Your task to perform on an android device: Clear the shopping cart on newegg. Search for razer nari on newegg, select the first entry, and add it to the cart. Image 0: 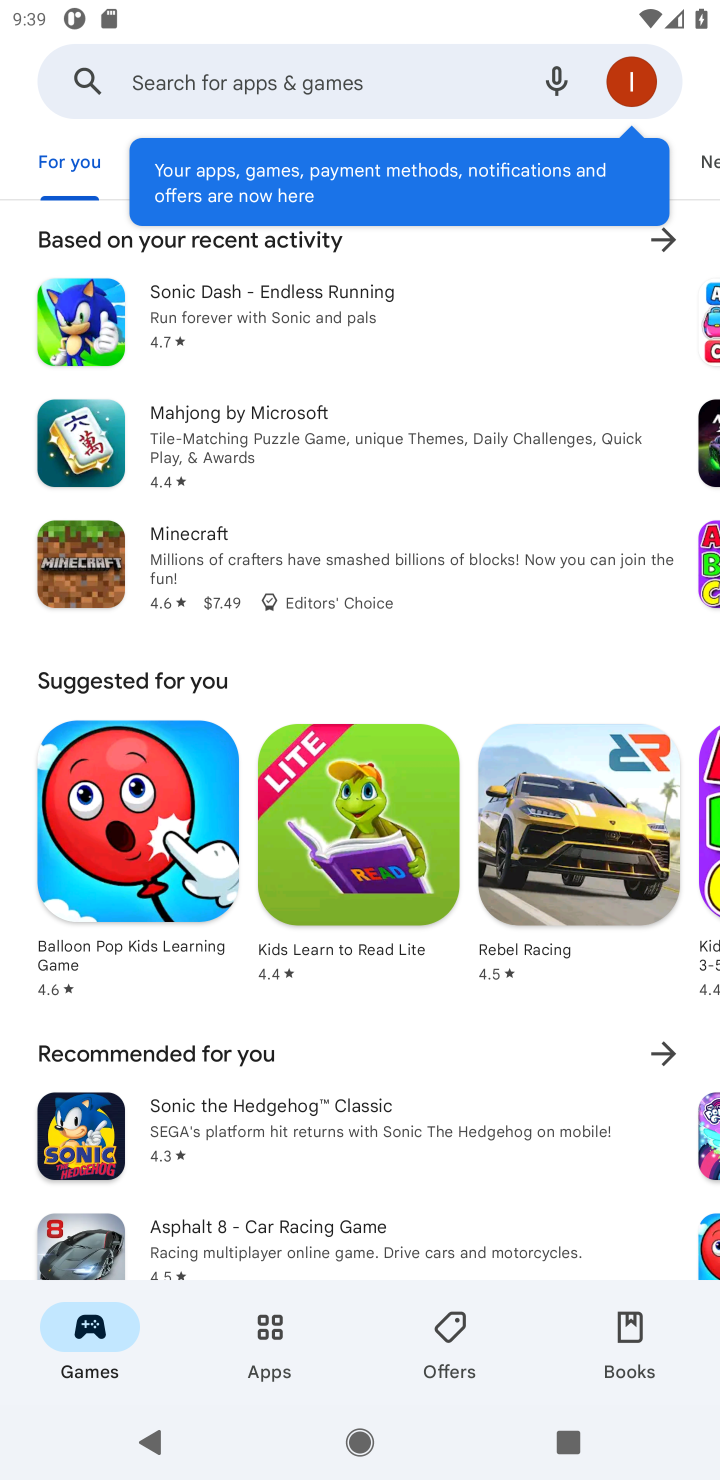
Step 0: press home button
Your task to perform on an android device: Clear the shopping cart on newegg. Search for razer nari on newegg, select the first entry, and add it to the cart. Image 1: 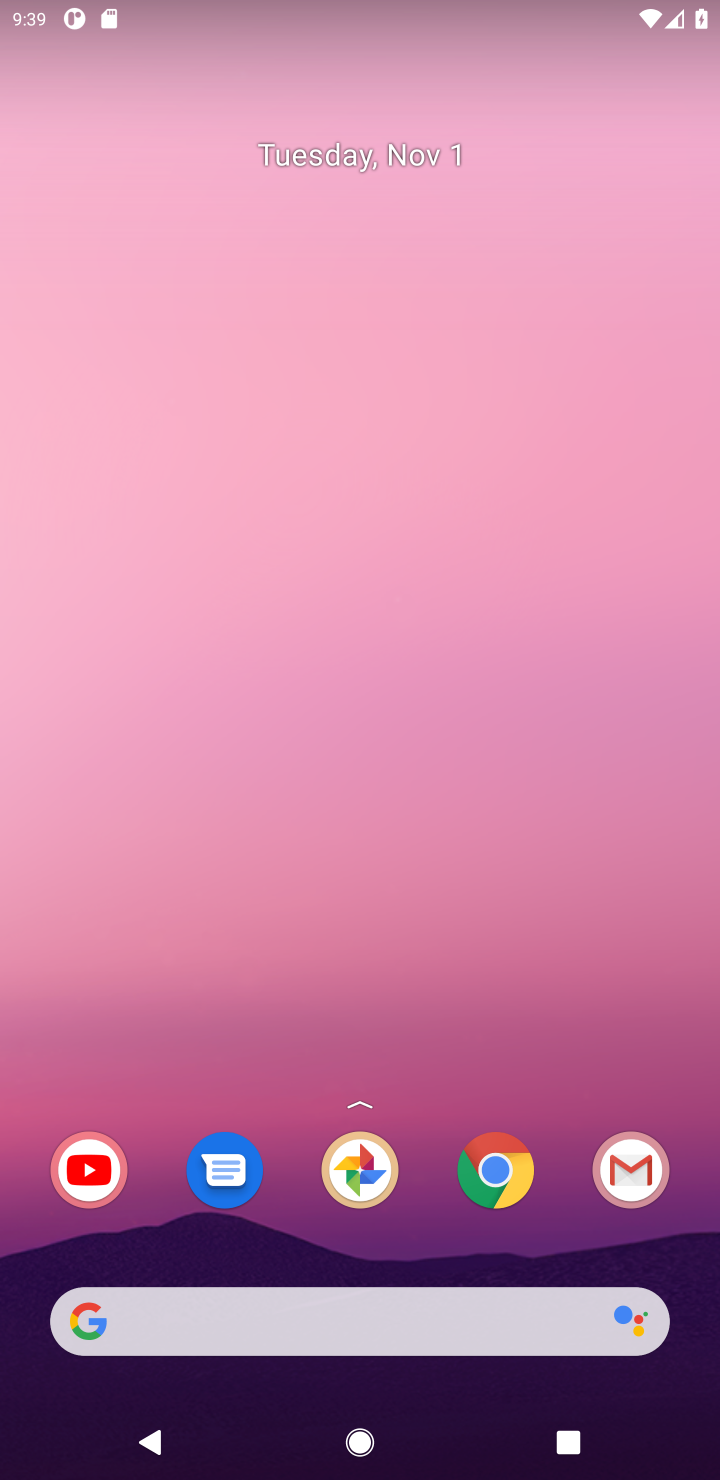
Step 1: click (490, 1164)
Your task to perform on an android device: Clear the shopping cart on newegg. Search for razer nari on newegg, select the first entry, and add it to the cart. Image 2: 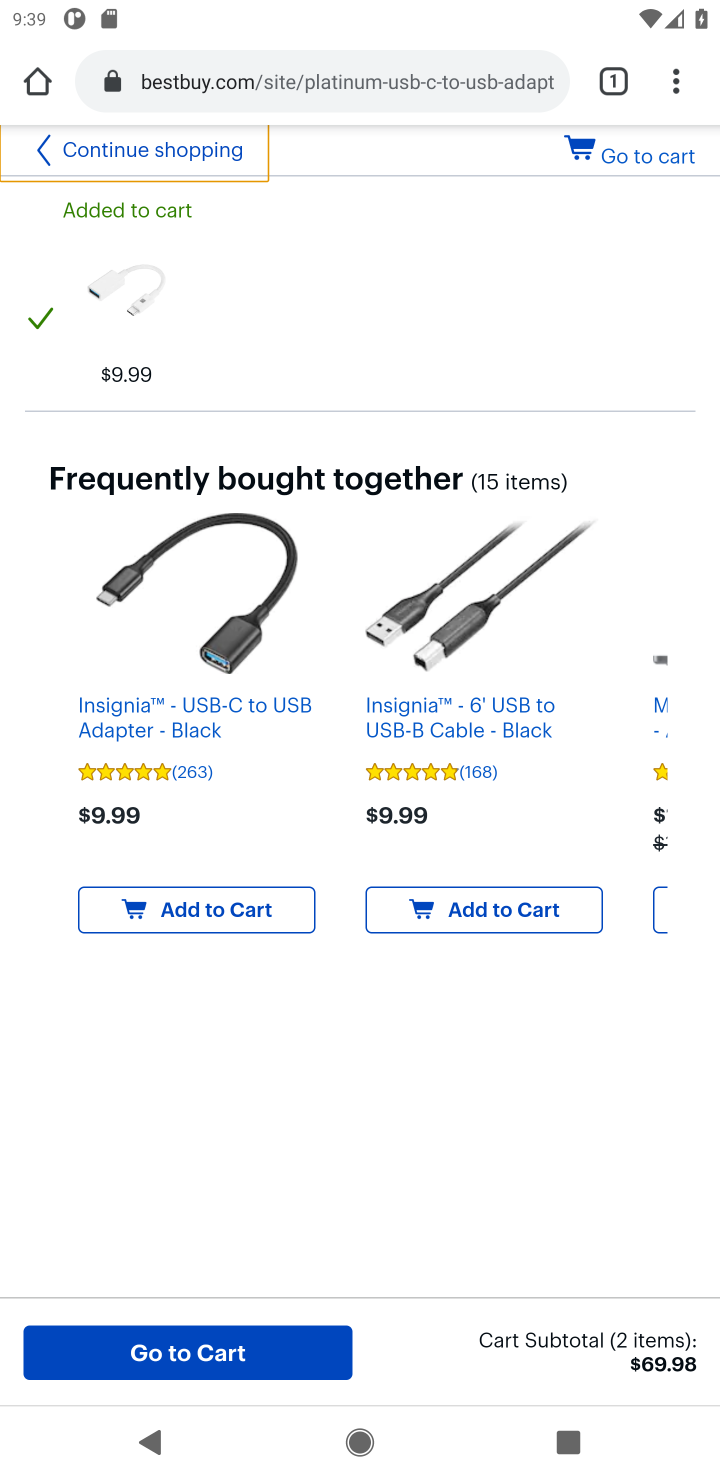
Step 2: click (355, 89)
Your task to perform on an android device: Clear the shopping cart on newegg. Search for razer nari on newegg, select the first entry, and add it to the cart. Image 3: 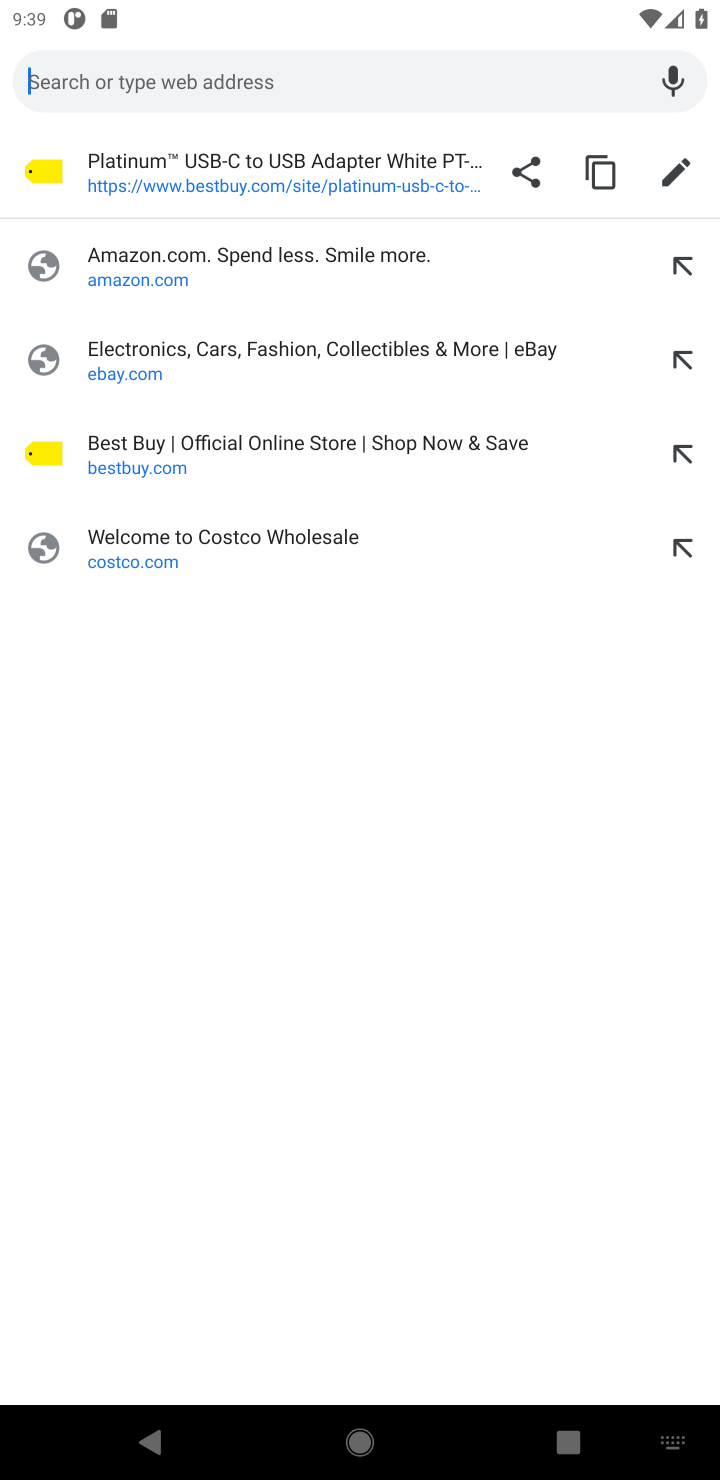
Step 3: type "newegg"
Your task to perform on an android device: Clear the shopping cart on newegg. Search for razer nari on newegg, select the first entry, and add it to the cart. Image 4: 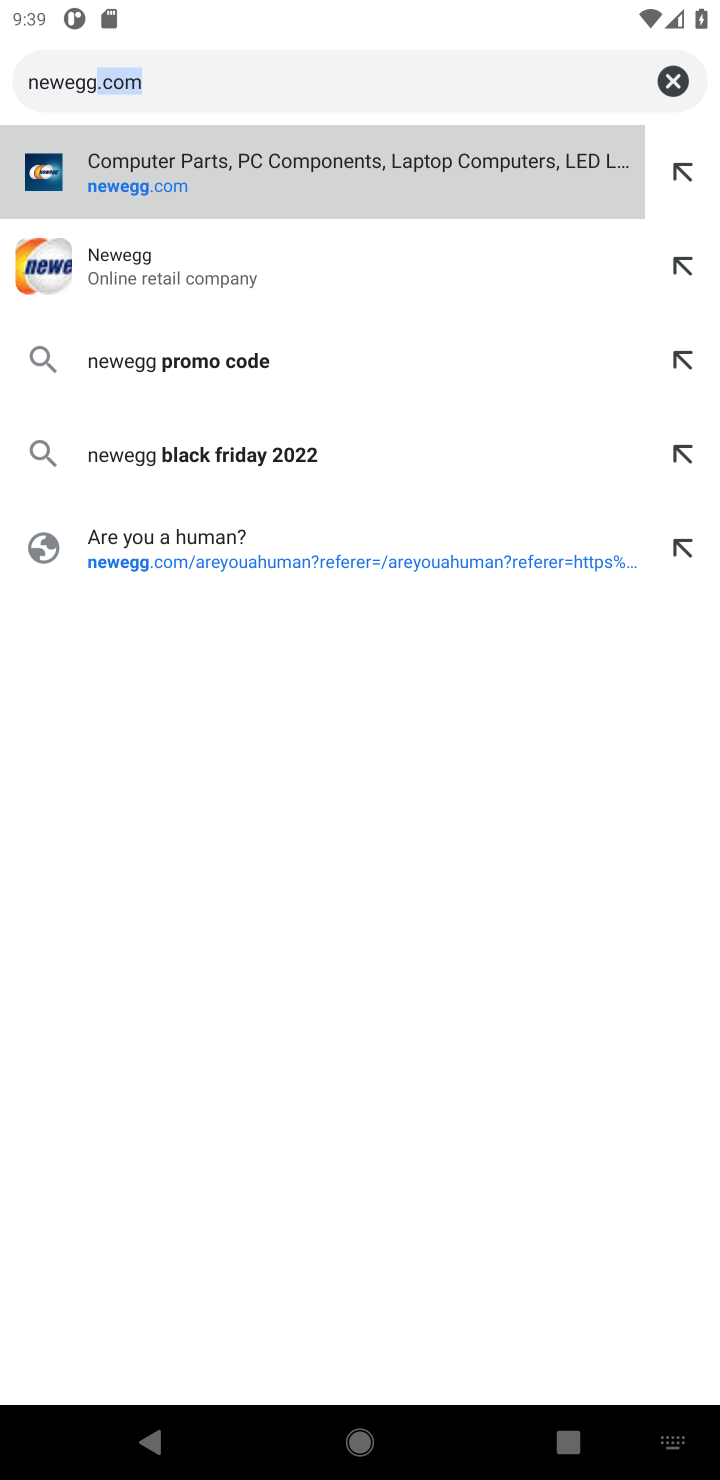
Step 4: press enter
Your task to perform on an android device: Clear the shopping cart on newegg. Search for razer nari on newegg, select the first entry, and add it to the cart. Image 5: 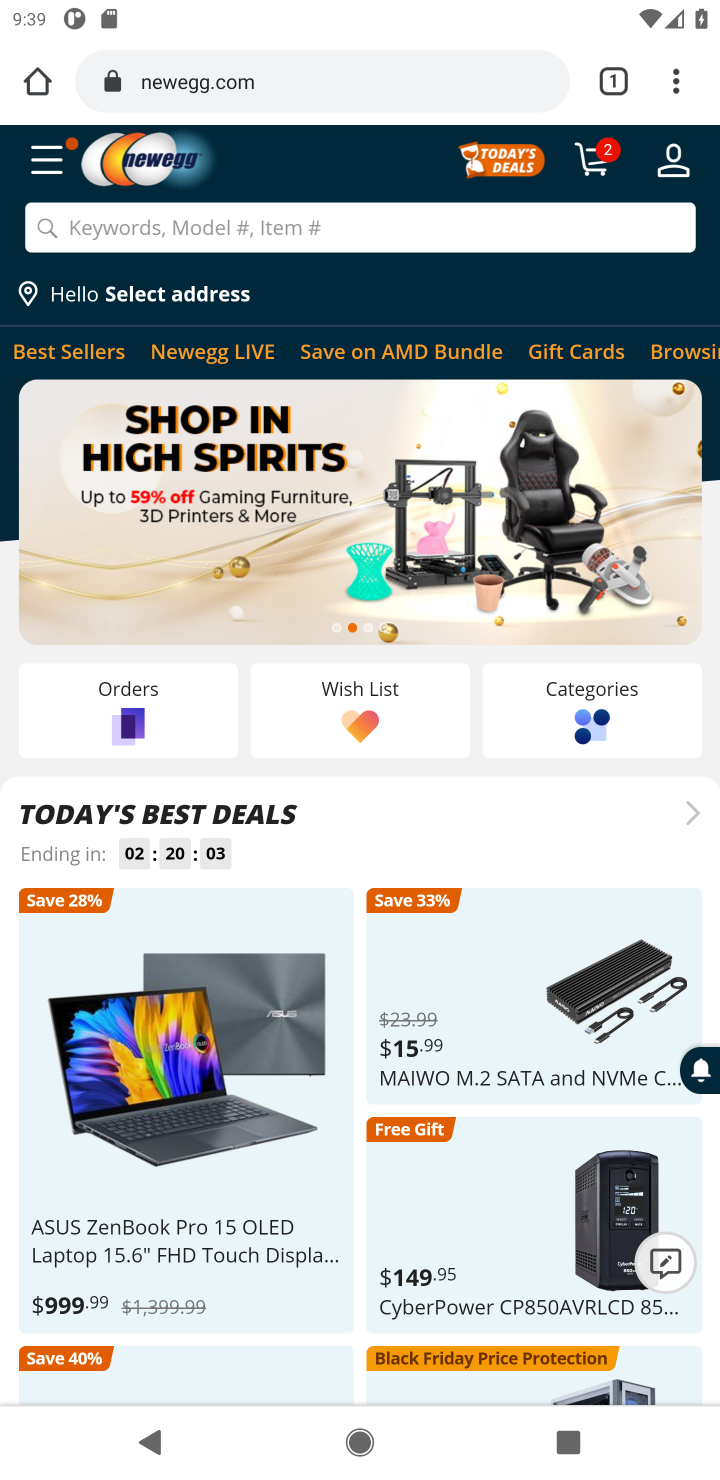
Step 5: click (592, 163)
Your task to perform on an android device: Clear the shopping cart on newegg. Search for razer nari on newegg, select the first entry, and add it to the cart. Image 6: 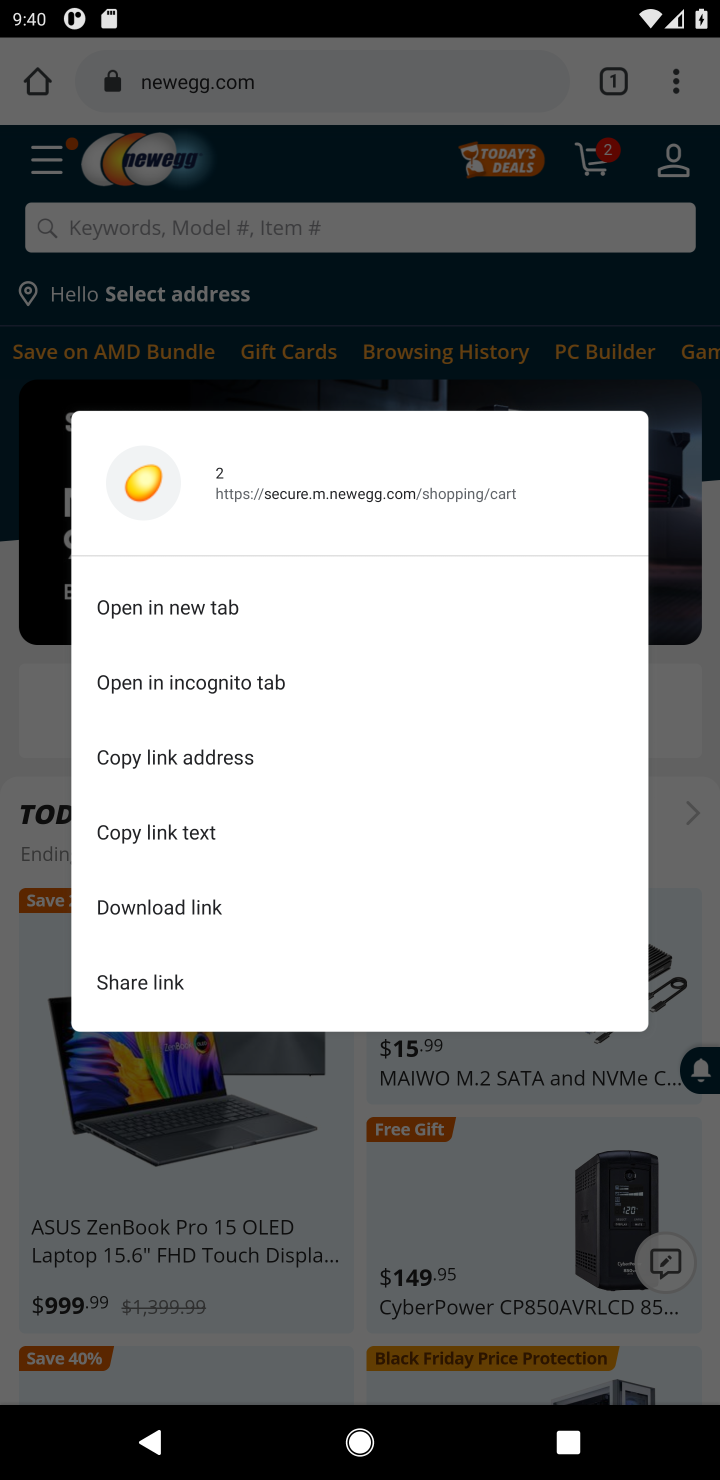
Step 6: click (542, 1150)
Your task to perform on an android device: Clear the shopping cart on newegg. Search for razer nari on newegg, select the first entry, and add it to the cart. Image 7: 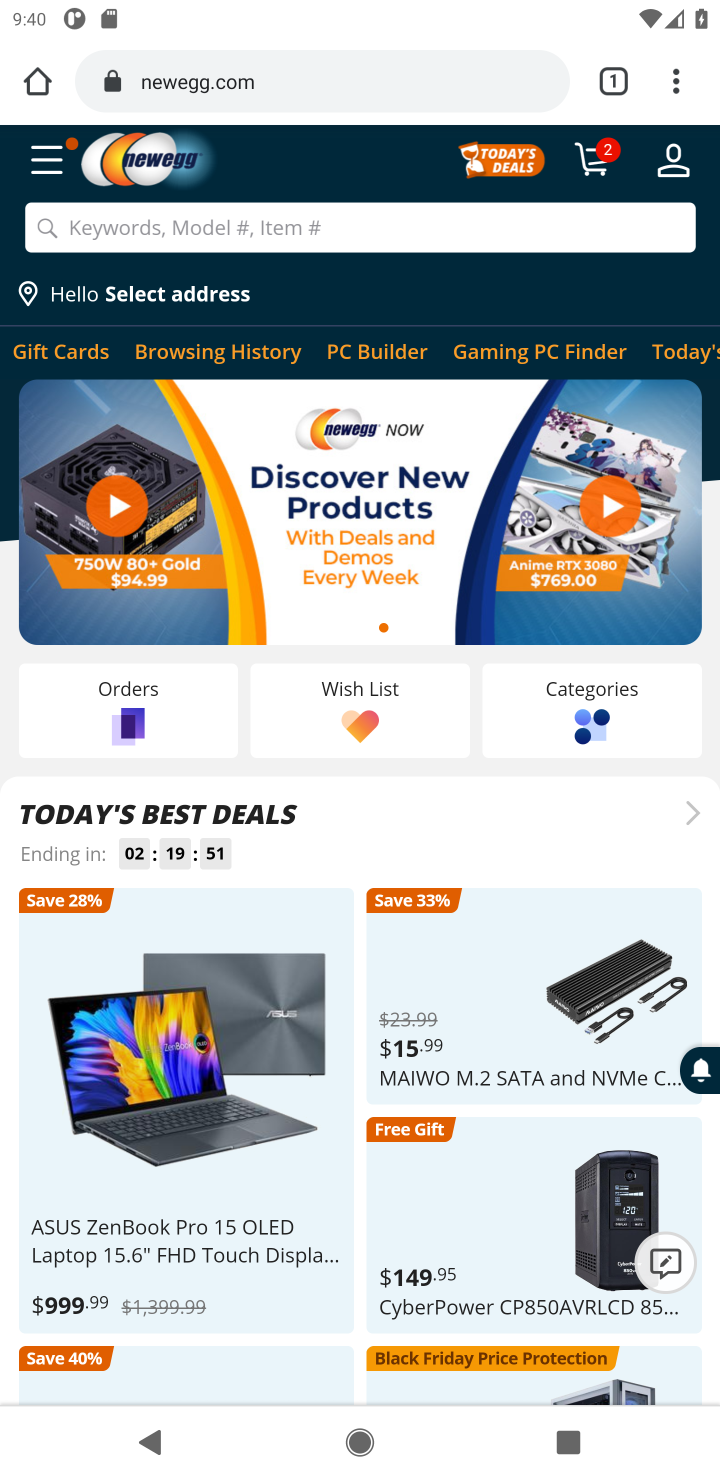
Step 7: click (599, 170)
Your task to perform on an android device: Clear the shopping cart on newegg. Search for razer nari on newegg, select the first entry, and add it to the cart. Image 8: 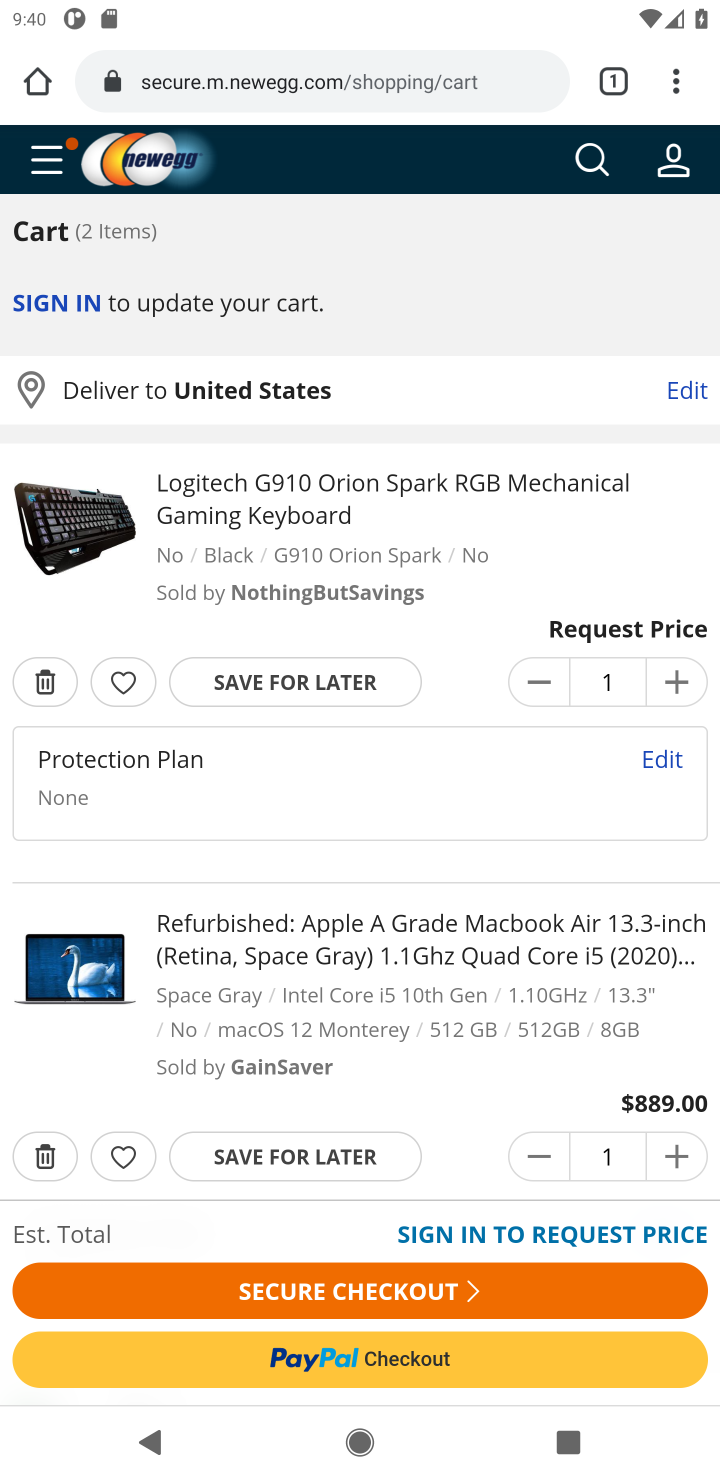
Step 8: click (50, 689)
Your task to perform on an android device: Clear the shopping cart on newegg. Search for razer nari on newegg, select the first entry, and add it to the cart. Image 9: 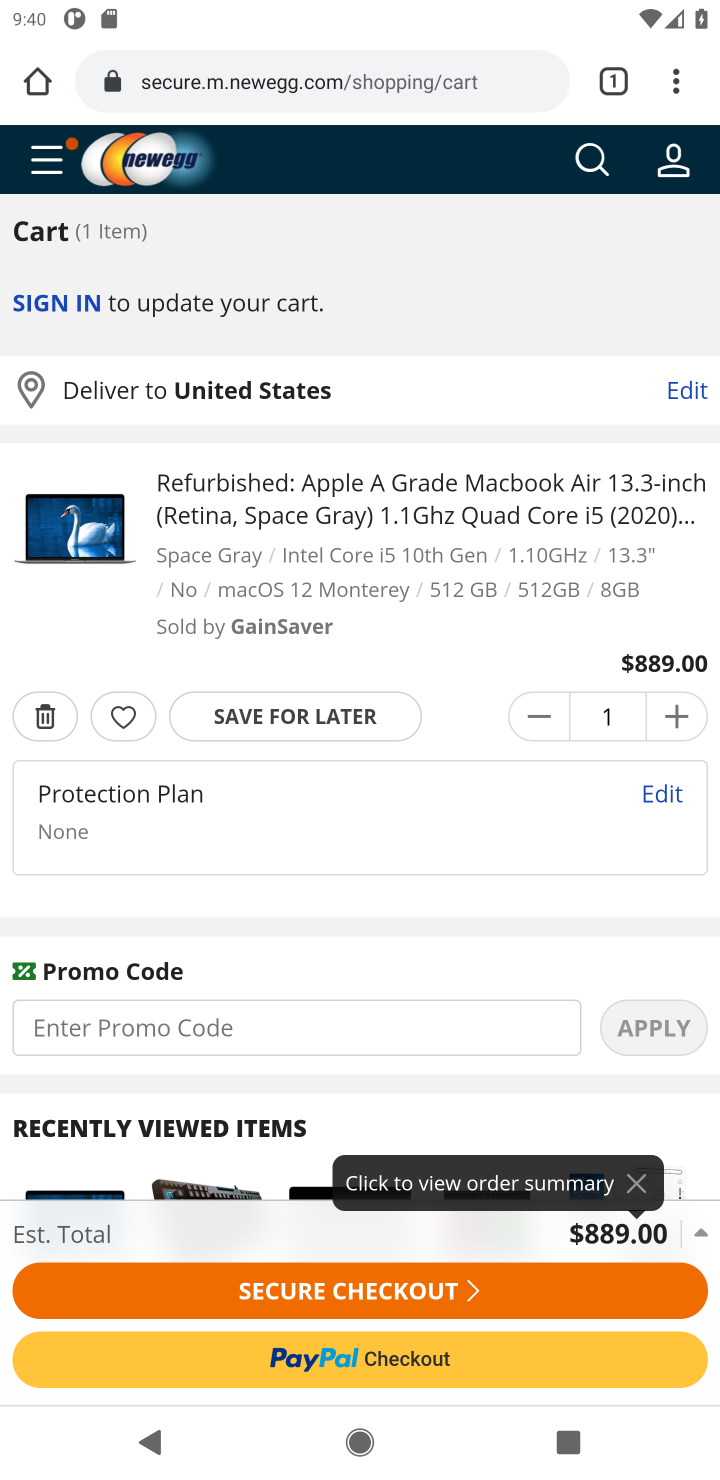
Step 9: click (39, 719)
Your task to perform on an android device: Clear the shopping cart on newegg. Search for razer nari on newegg, select the first entry, and add it to the cart. Image 10: 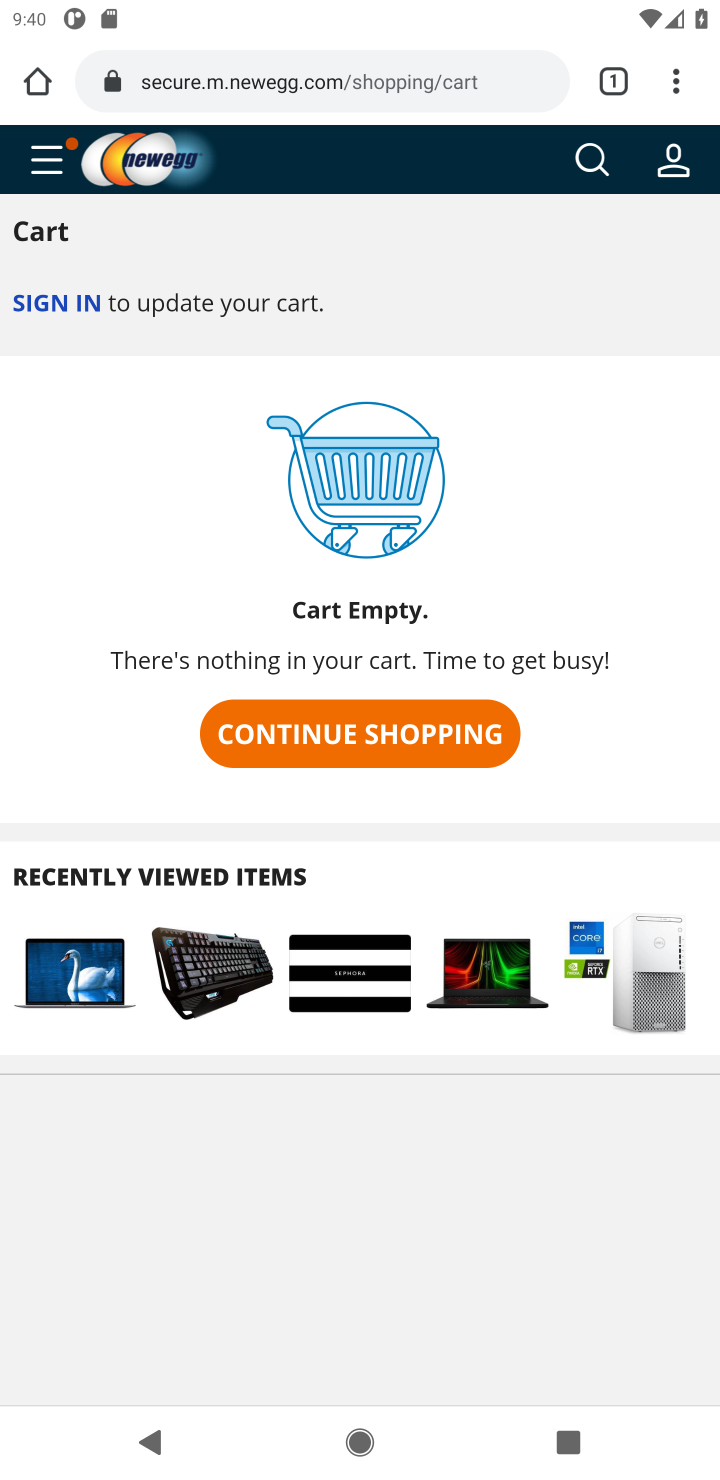
Step 10: click (399, 735)
Your task to perform on an android device: Clear the shopping cart on newegg. Search for razer nari on newegg, select the first entry, and add it to the cart. Image 11: 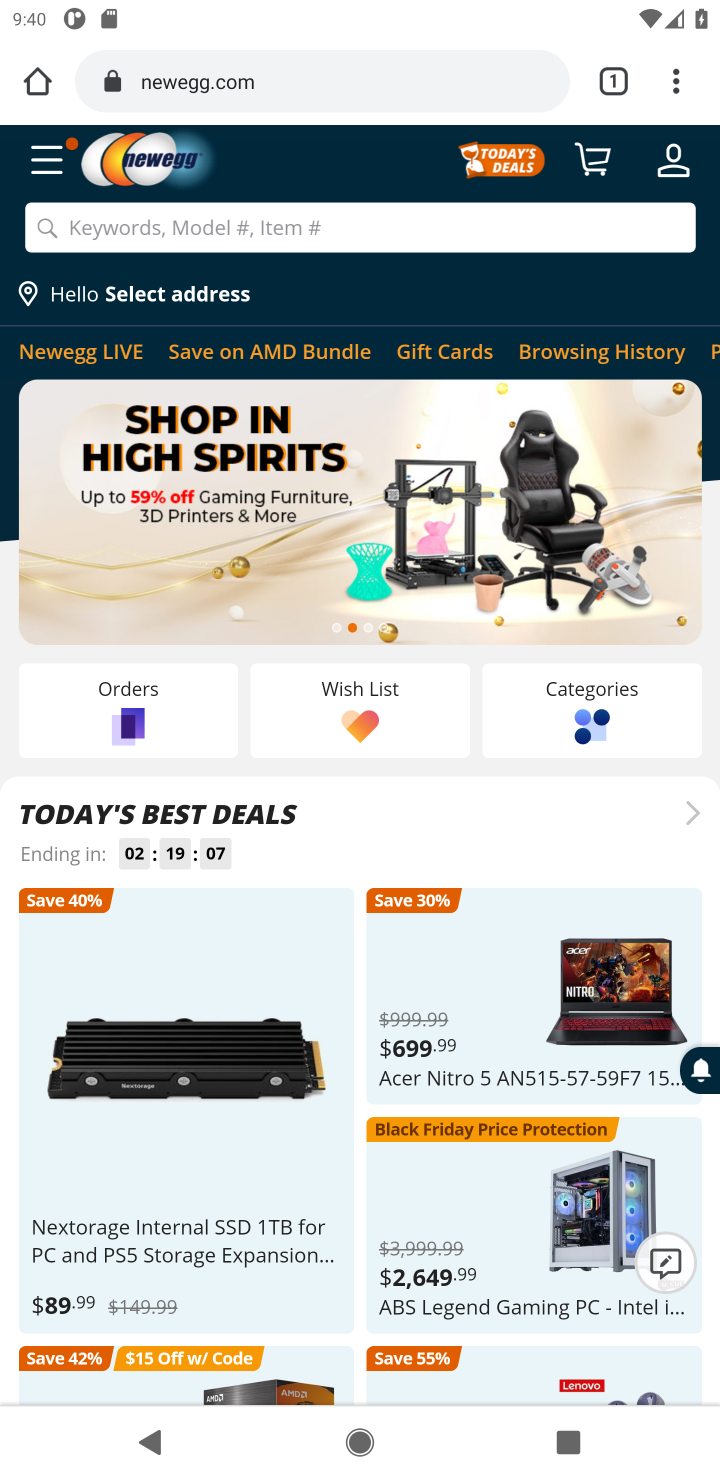
Step 11: click (270, 222)
Your task to perform on an android device: Clear the shopping cart on newegg. Search for razer nari on newegg, select the first entry, and add it to the cart. Image 12: 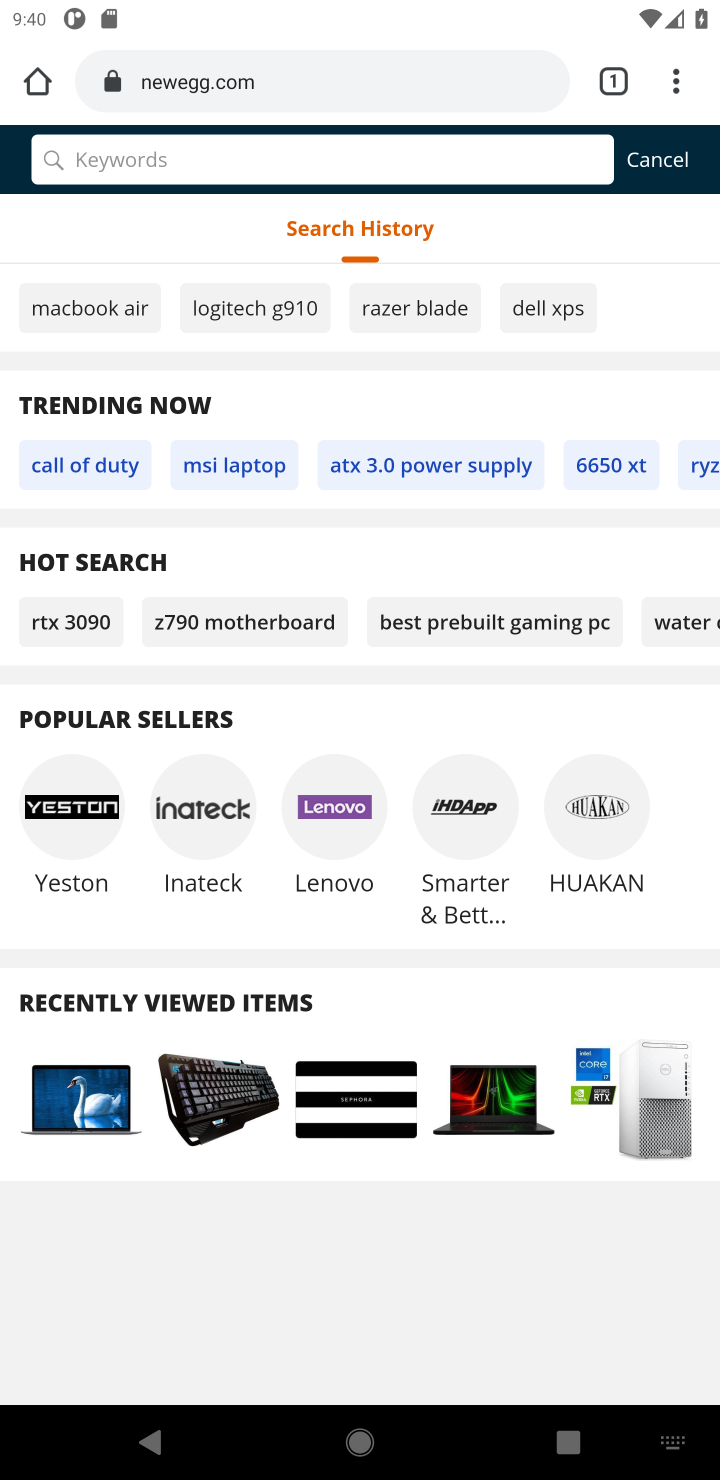
Step 12: type "razer nari"
Your task to perform on an android device: Clear the shopping cart on newegg. Search for razer nari on newegg, select the first entry, and add it to the cart. Image 13: 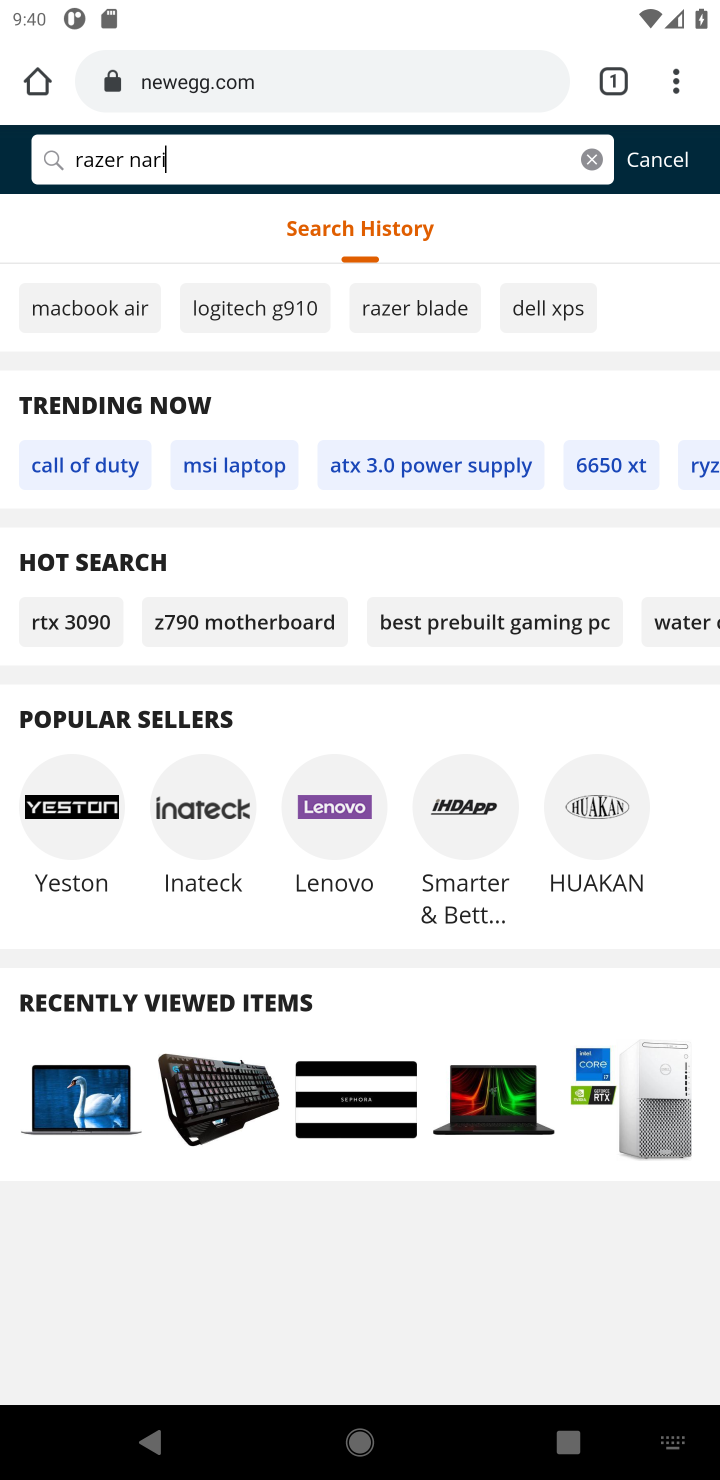
Step 13: type ""
Your task to perform on an android device: Clear the shopping cart on newegg. Search for razer nari on newegg, select the first entry, and add it to the cart. Image 14: 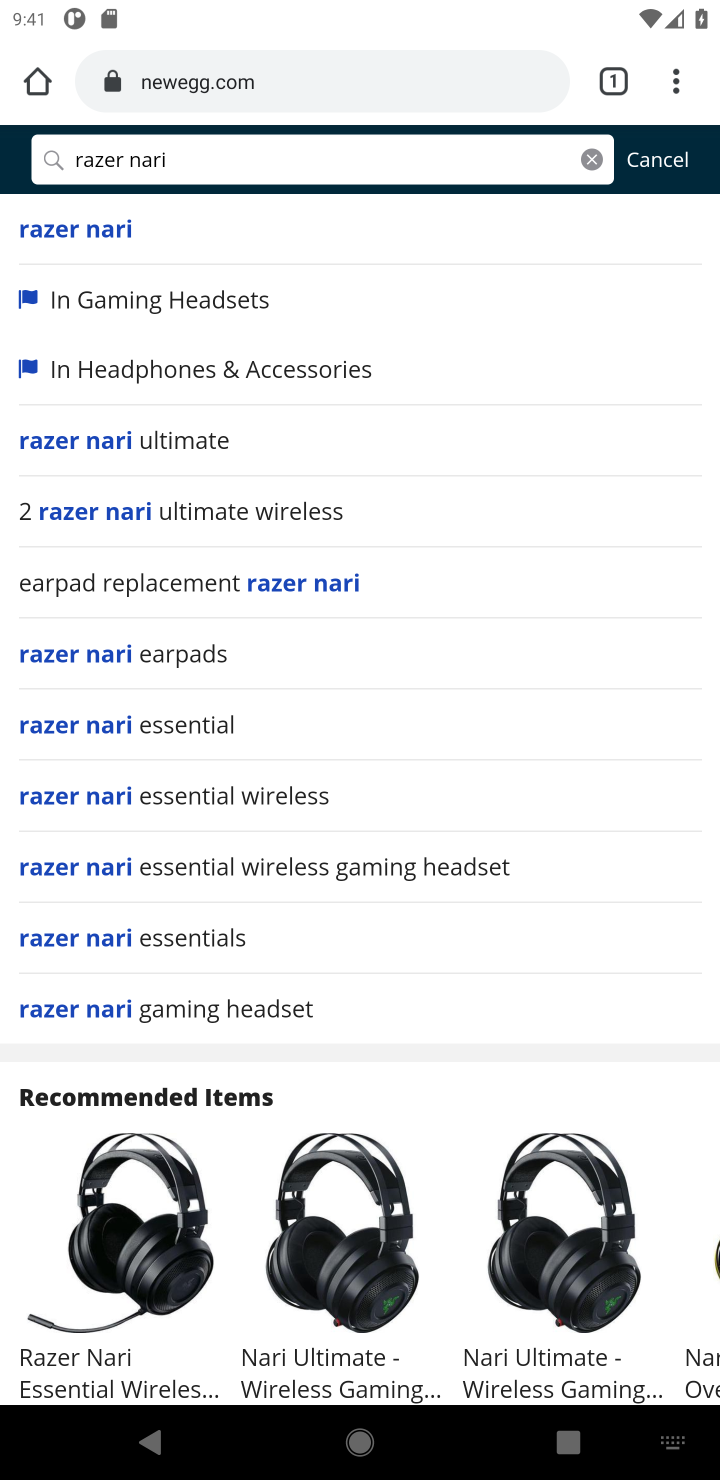
Step 14: press enter
Your task to perform on an android device: Clear the shopping cart on newegg. Search for razer nari on newegg, select the first entry, and add it to the cart. Image 15: 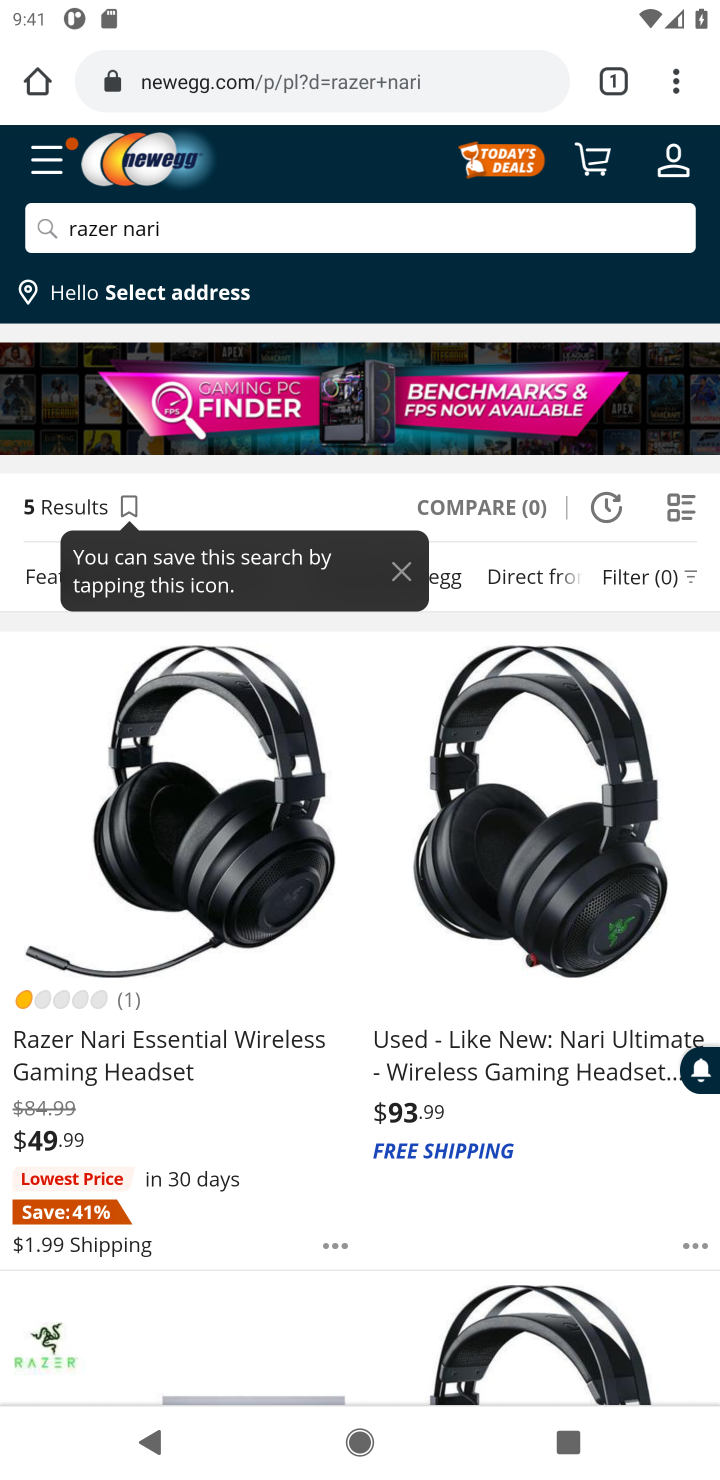
Step 15: click (166, 928)
Your task to perform on an android device: Clear the shopping cart on newegg. Search for razer nari on newegg, select the first entry, and add it to the cart. Image 16: 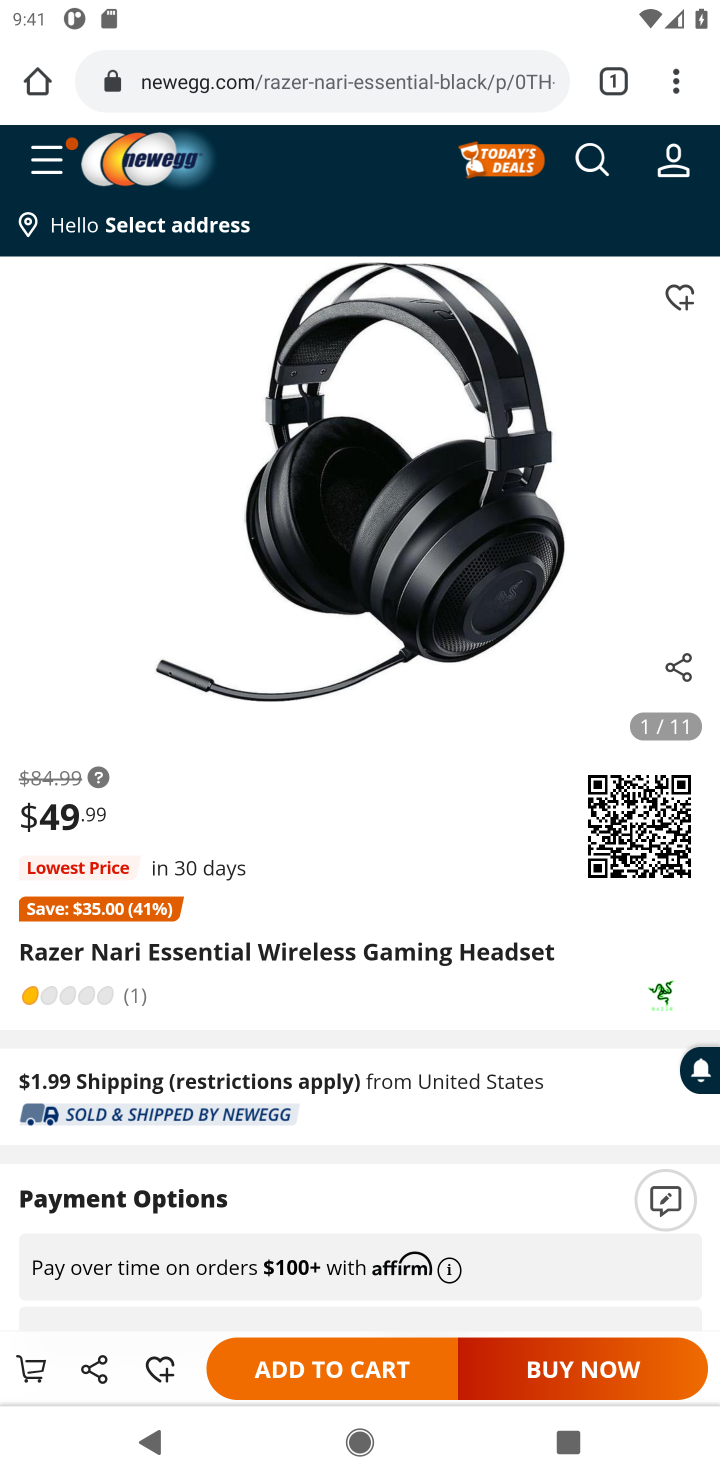
Step 16: click (338, 1376)
Your task to perform on an android device: Clear the shopping cart on newegg. Search for razer nari on newegg, select the first entry, and add it to the cart. Image 17: 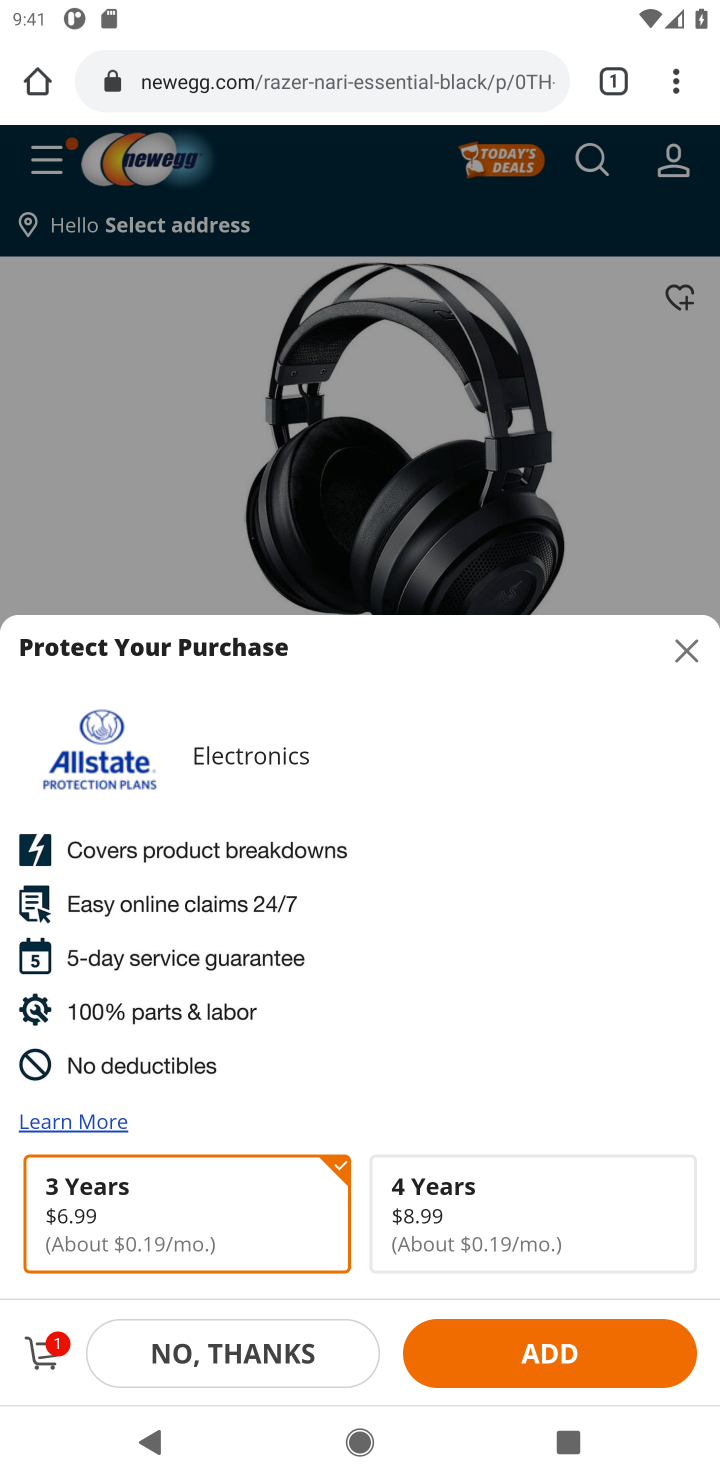
Step 17: click (180, 1345)
Your task to perform on an android device: Clear the shopping cart on newegg. Search for razer nari on newegg, select the first entry, and add it to the cart. Image 18: 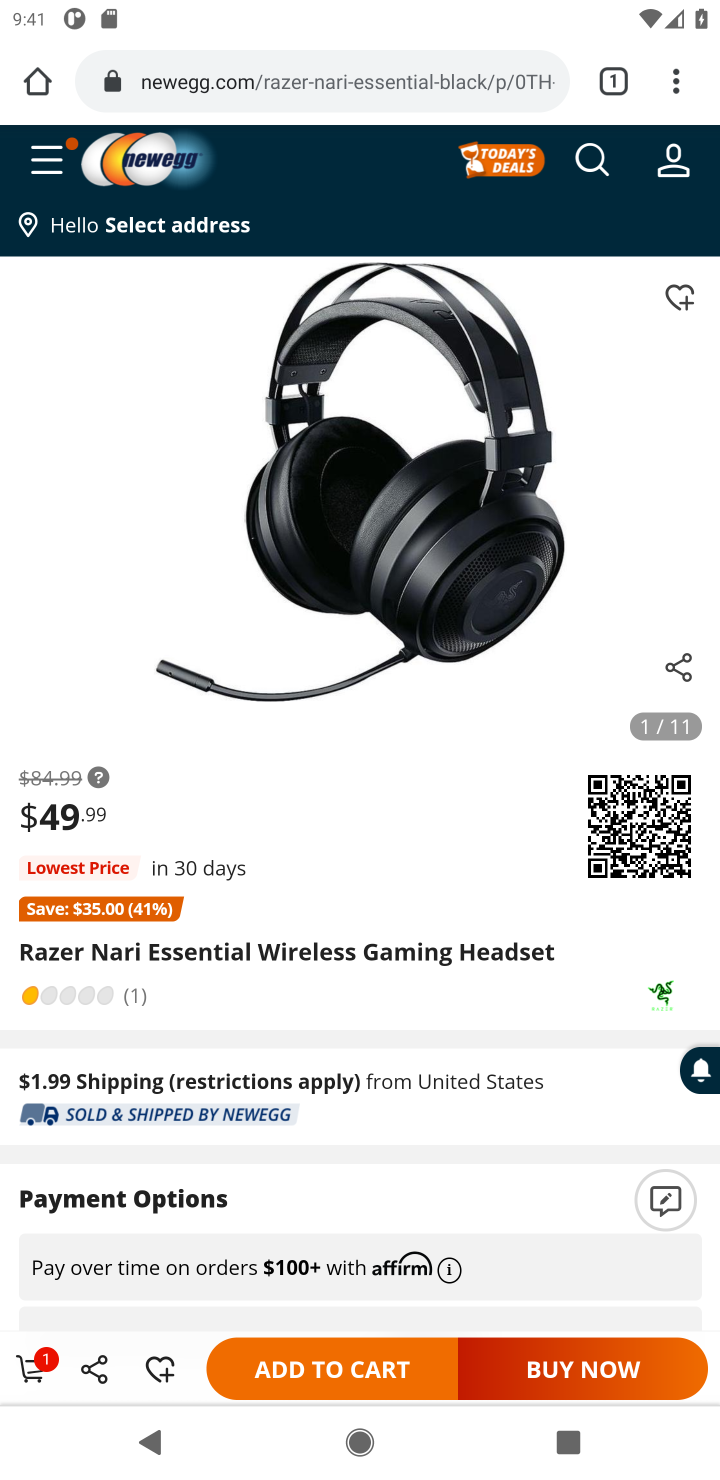
Step 18: task complete